Your task to perform on an android device: Go to eBay Image 0: 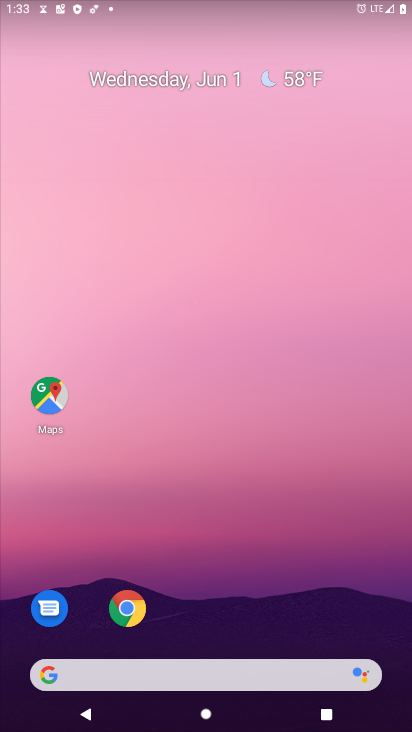
Step 0: click (125, 605)
Your task to perform on an android device: Go to eBay Image 1: 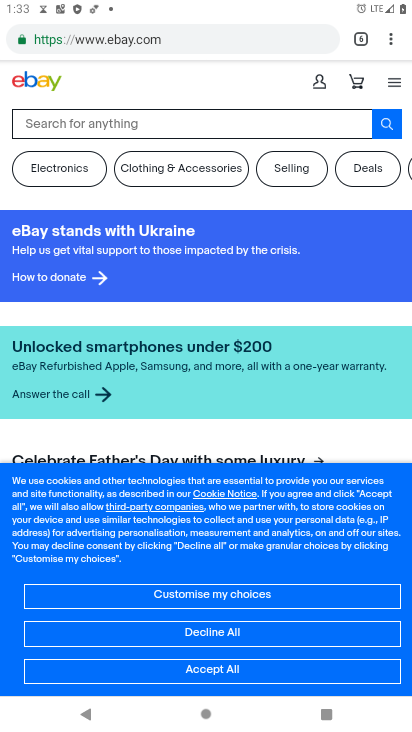
Step 1: task complete